Your task to perform on an android device: turn on improve location accuracy Image 0: 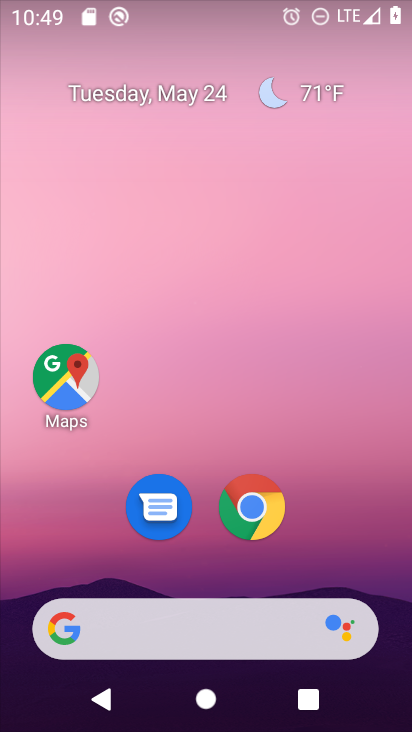
Step 0: drag from (234, 726) to (237, 84)
Your task to perform on an android device: turn on improve location accuracy Image 1: 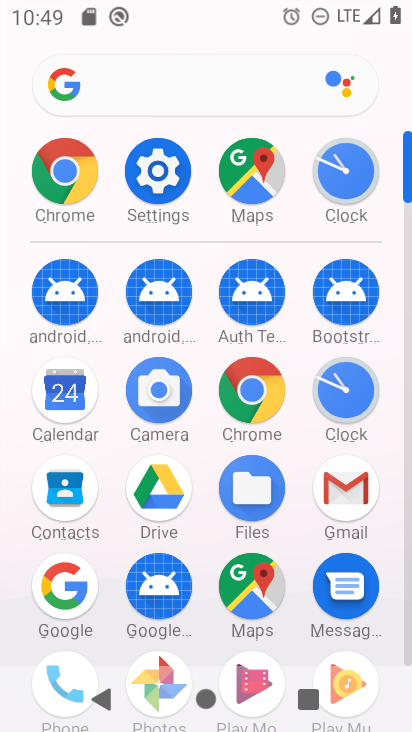
Step 1: click (165, 161)
Your task to perform on an android device: turn on improve location accuracy Image 2: 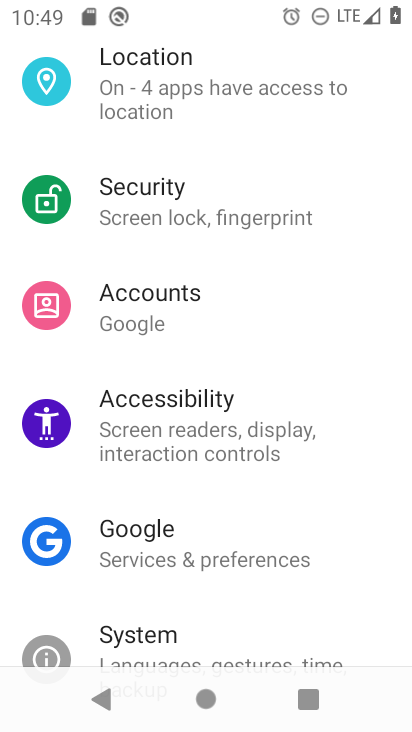
Step 2: click (133, 101)
Your task to perform on an android device: turn on improve location accuracy Image 3: 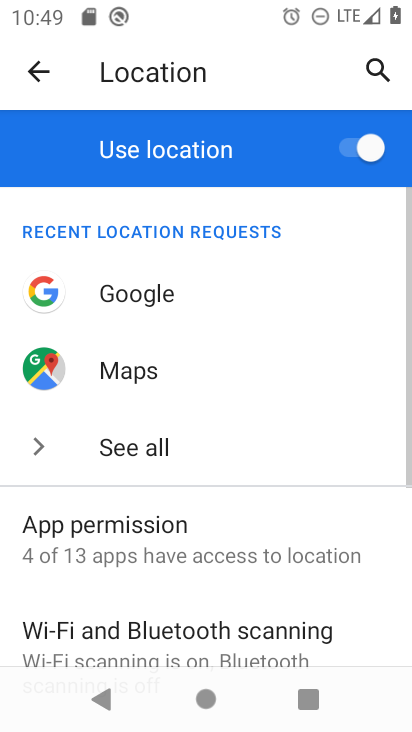
Step 3: drag from (195, 603) to (189, 218)
Your task to perform on an android device: turn on improve location accuracy Image 4: 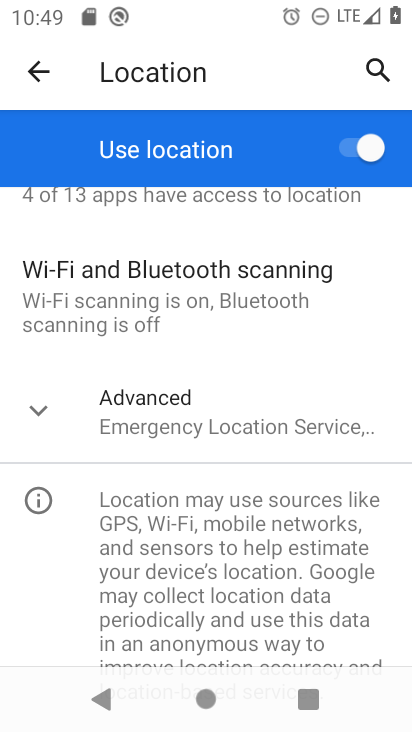
Step 4: click (169, 420)
Your task to perform on an android device: turn on improve location accuracy Image 5: 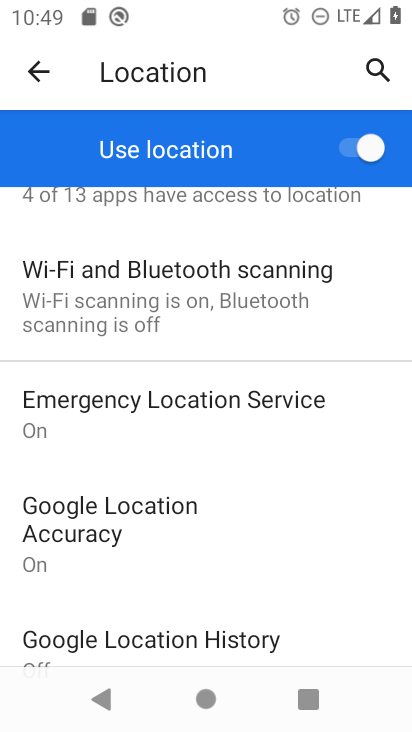
Step 5: drag from (171, 609) to (172, 434)
Your task to perform on an android device: turn on improve location accuracy Image 6: 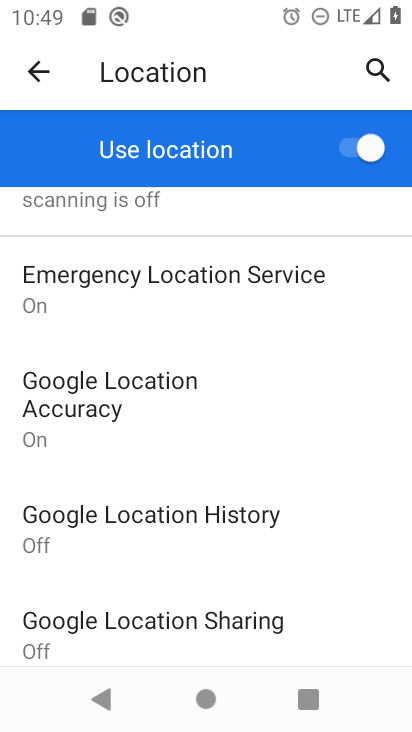
Step 6: click (93, 399)
Your task to perform on an android device: turn on improve location accuracy Image 7: 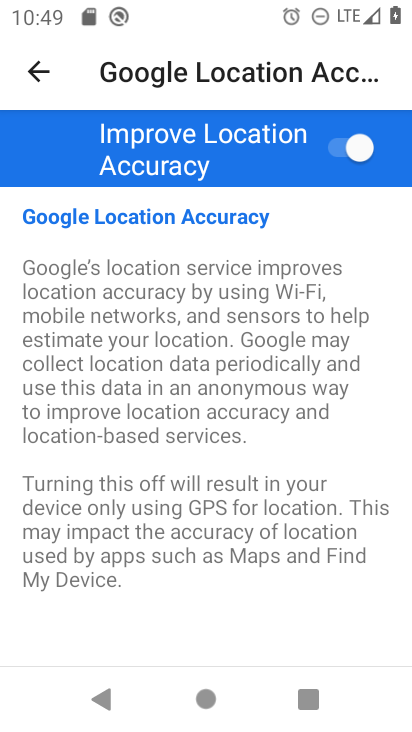
Step 7: task complete